Your task to perform on an android device: turn on priority inbox in the gmail app Image 0: 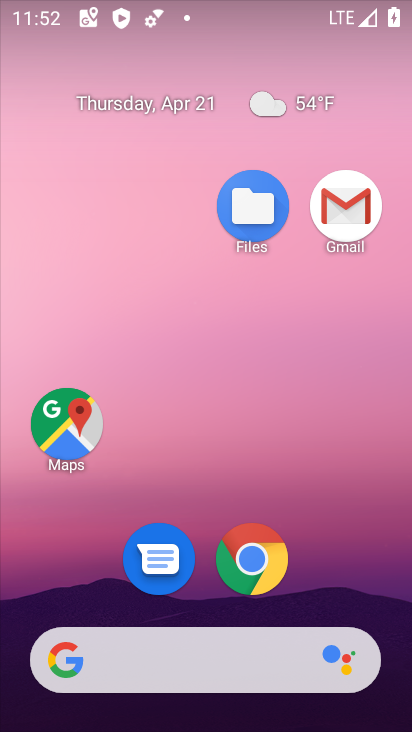
Step 0: click (347, 216)
Your task to perform on an android device: turn on priority inbox in the gmail app Image 1: 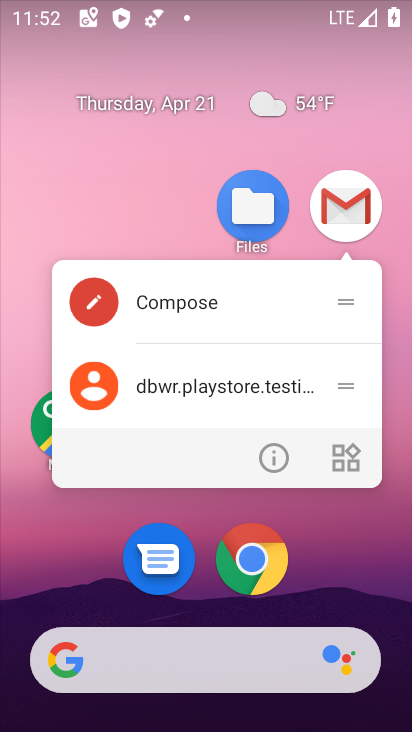
Step 1: click (347, 216)
Your task to perform on an android device: turn on priority inbox in the gmail app Image 2: 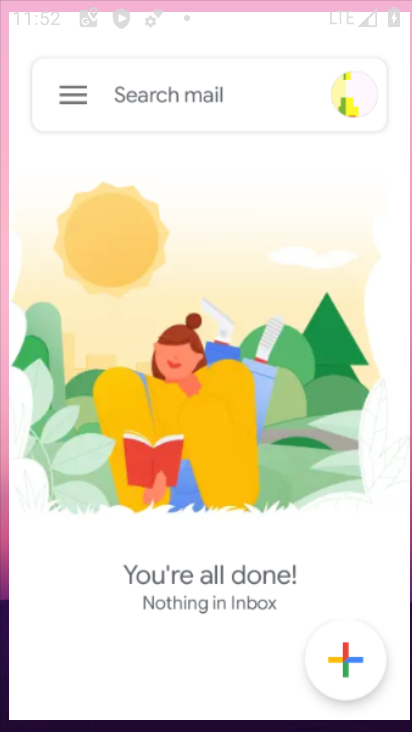
Step 2: click (347, 217)
Your task to perform on an android device: turn on priority inbox in the gmail app Image 3: 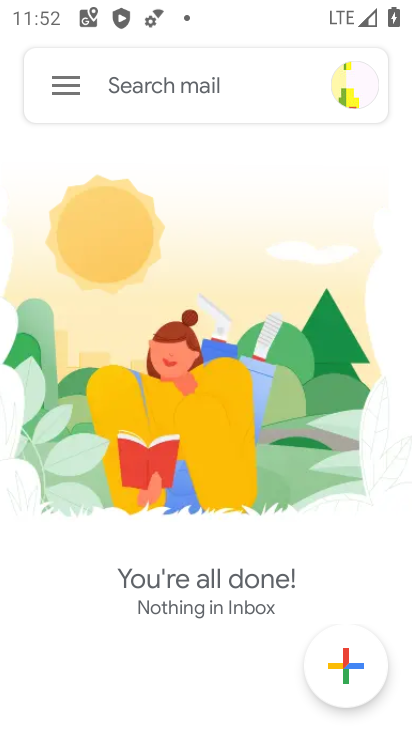
Step 3: click (56, 79)
Your task to perform on an android device: turn on priority inbox in the gmail app Image 4: 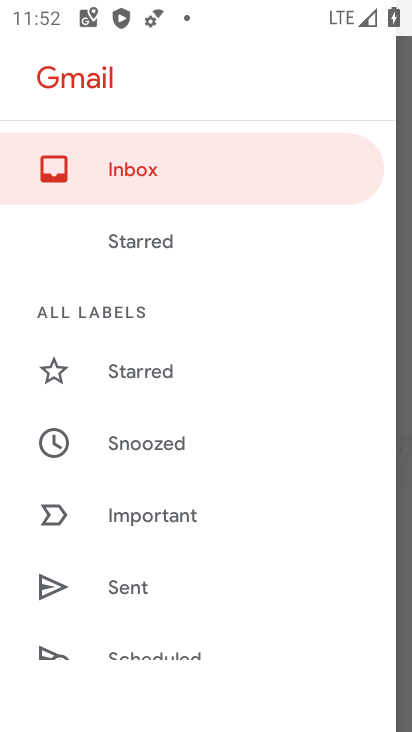
Step 4: drag from (198, 524) to (269, 87)
Your task to perform on an android device: turn on priority inbox in the gmail app Image 5: 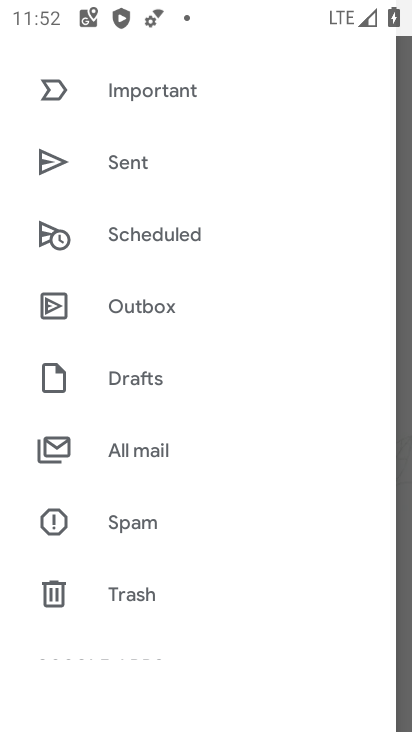
Step 5: drag from (172, 425) to (242, 224)
Your task to perform on an android device: turn on priority inbox in the gmail app Image 6: 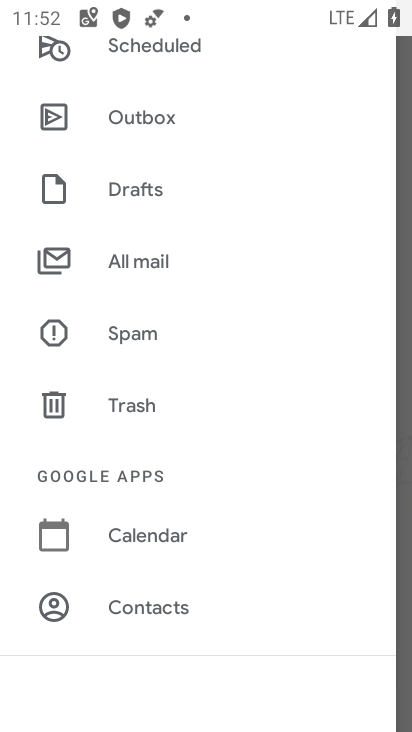
Step 6: drag from (185, 546) to (282, 176)
Your task to perform on an android device: turn on priority inbox in the gmail app Image 7: 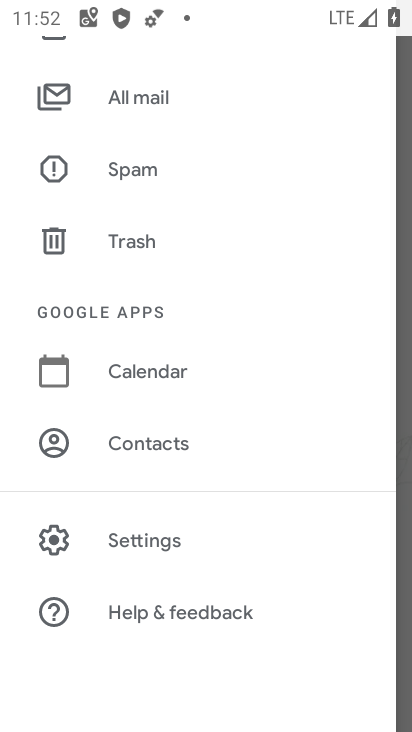
Step 7: click (141, 540)
Your task to perform on an android device: turn on priority inbox in the gmail app Image 8: 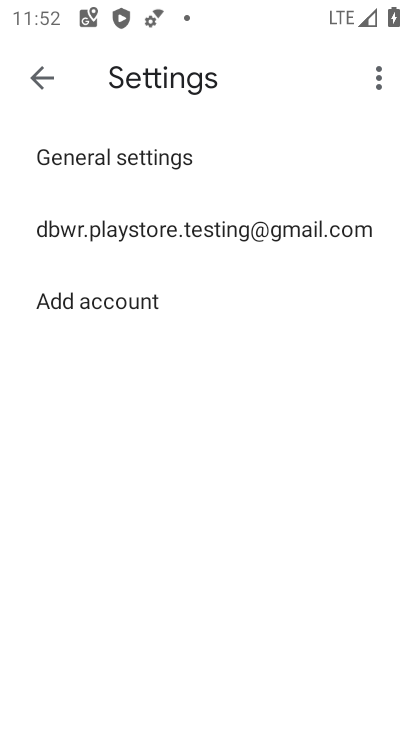
Step 8: click (166, 224)
Your task to perform on an android device: turn on priority inbox in the gmail app Image 9: 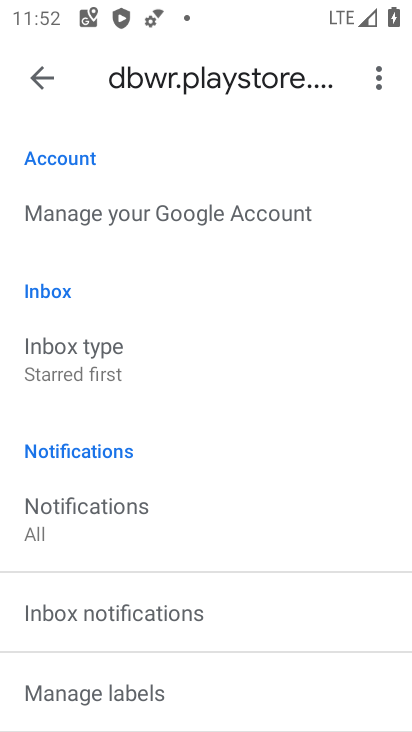
Step 9: click (110, 347)
Your task to perform on an android device: turn on priority inbox in the gmail app Image 10: 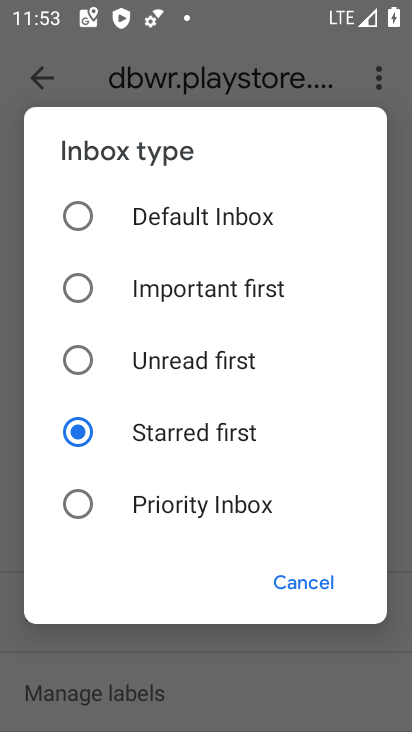
Step 10: click (211, 501)
Your task to perform on an android device: turn on priority inbox in the gmail app Image 11: 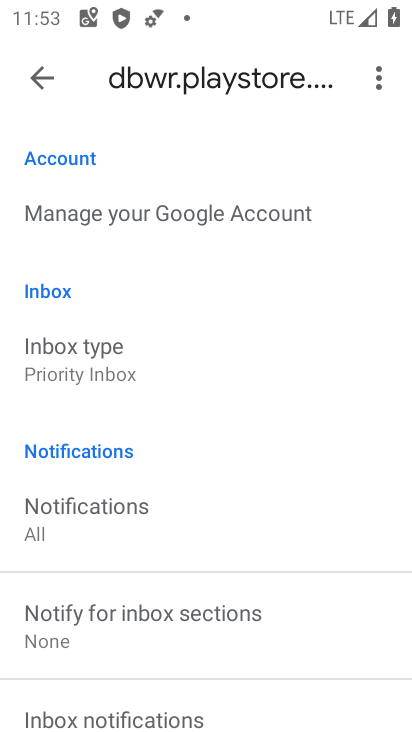
Step 11: task complete